Your task to perform on an android device: turn off picture-in-picture Image 0: 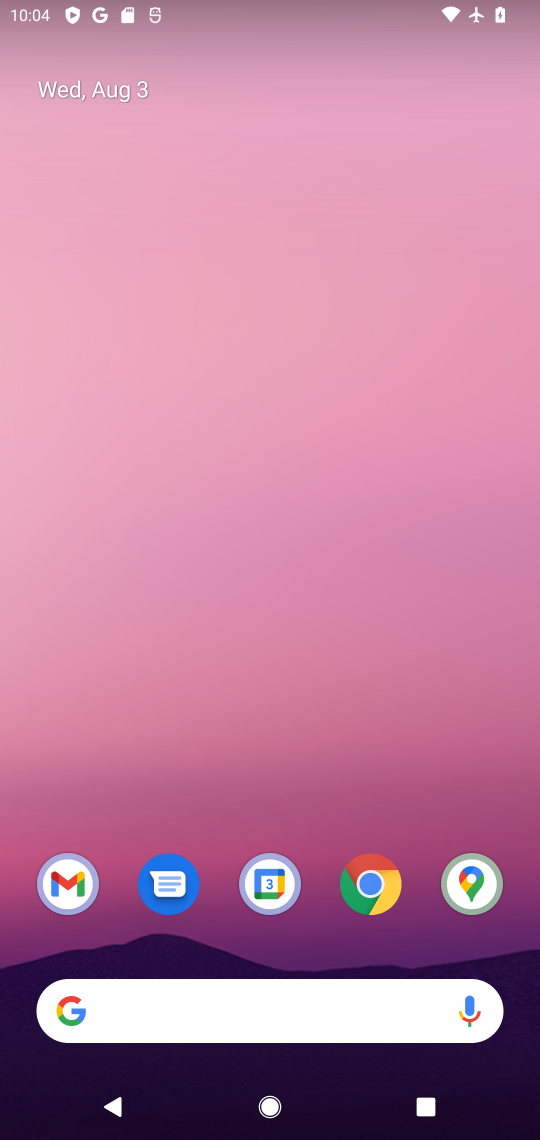
Step 0: click (368, 889)
Your task to perform on an android device: turn off picture-in-picture Image 1: 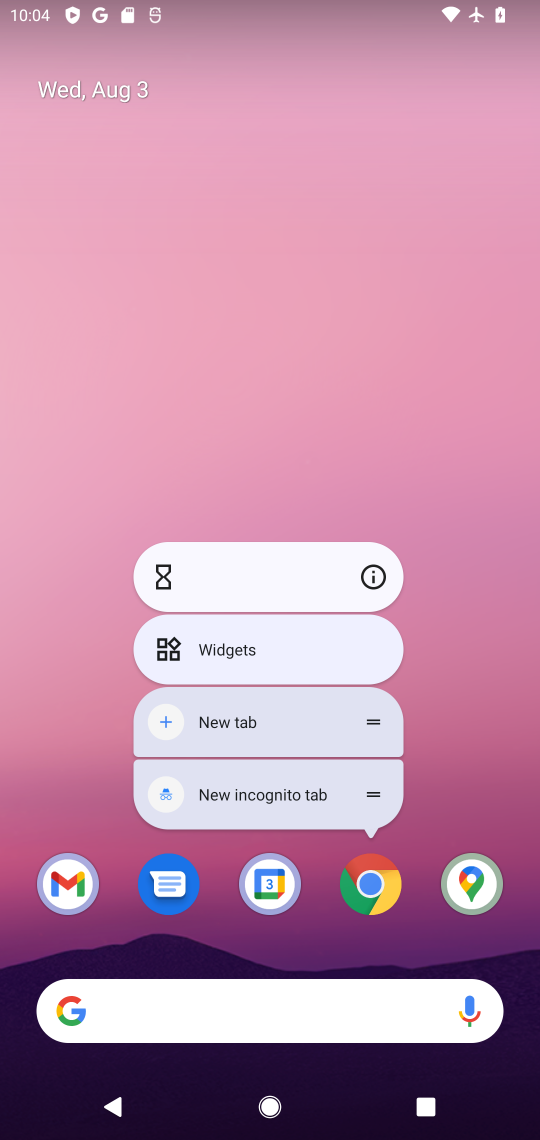
Step 1: click (365, 569)
Your task to perform on an android device: turn off picture-in-picture Image 2: 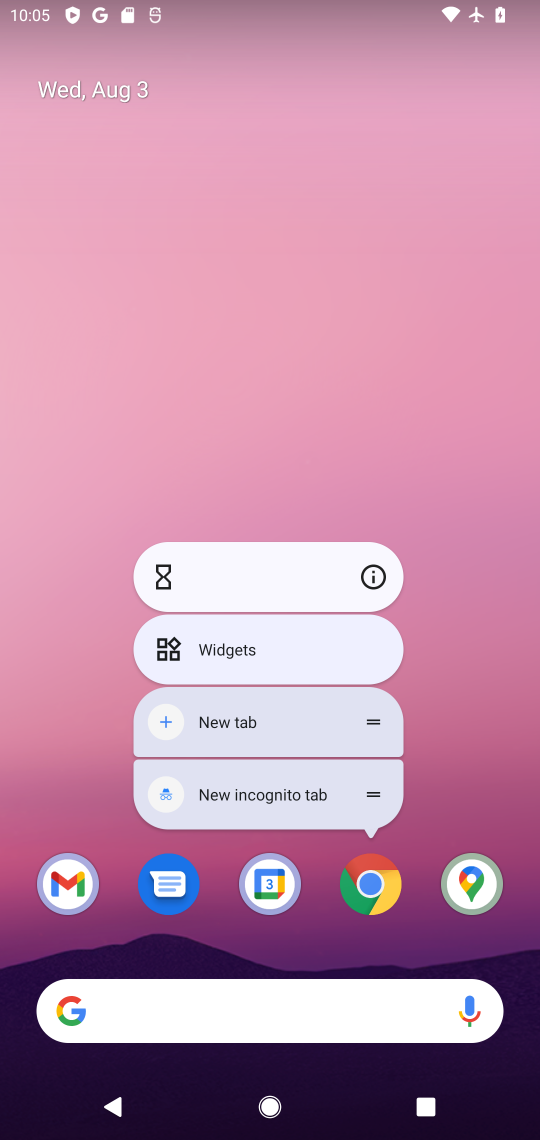
Step 2: click (368, 574)
Your task to perform on an android device: turn off picture-in-picture Image 3: 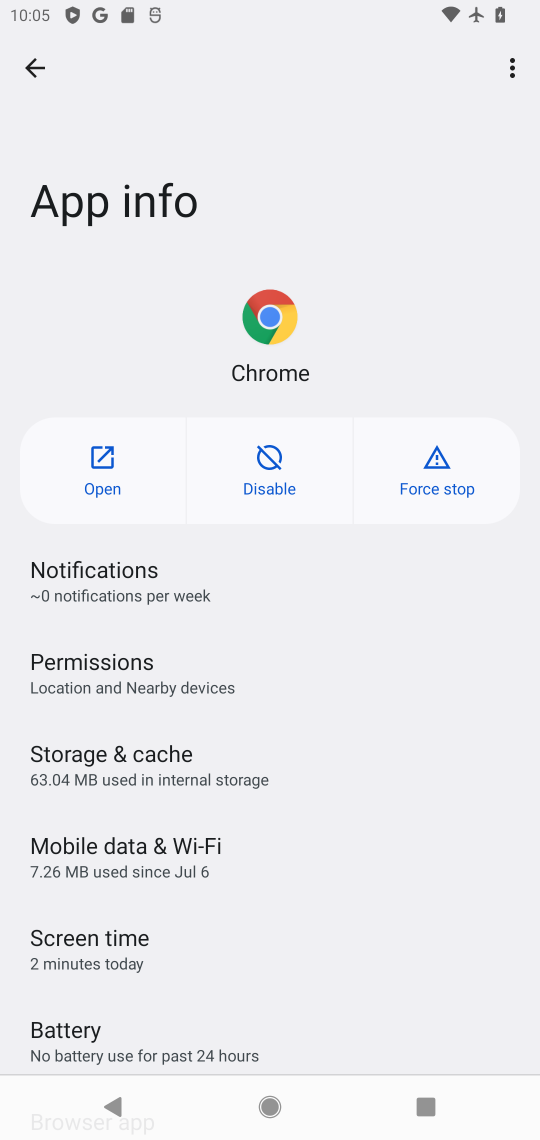
Step 3: drag from (287, 940) to (276, 563)
Your task to perform on an android device: turn off picture-in-picture Image 4: 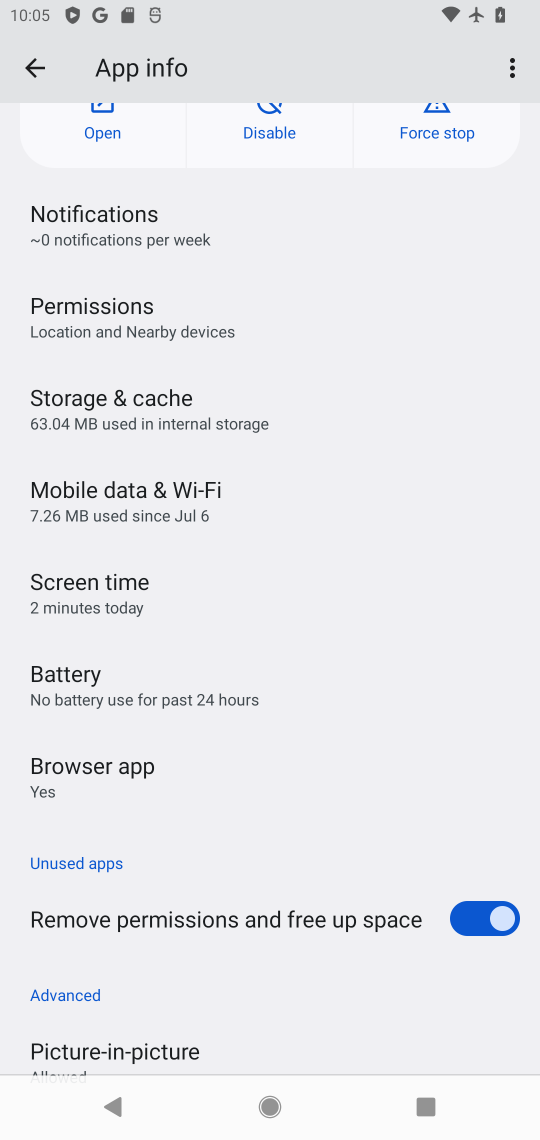
Step 4: drag from (300, 993) to (289, 605)
Your task to perform on an android device: turn off picture-in-picture Image 5: 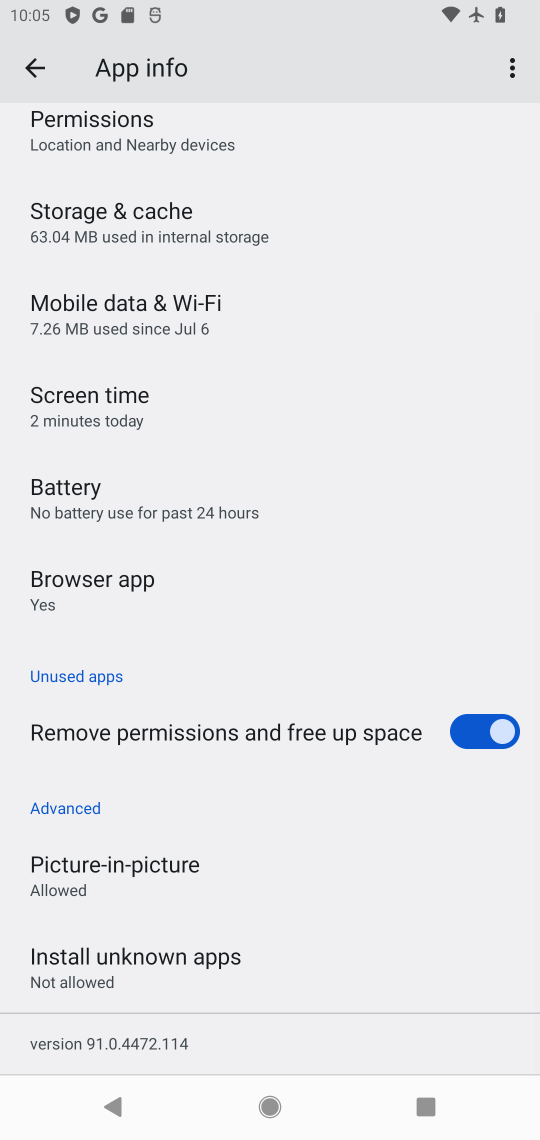
Step 5: click (125, 854)
Your task to perform on an android device: turn off picture-in-picture Image 6: 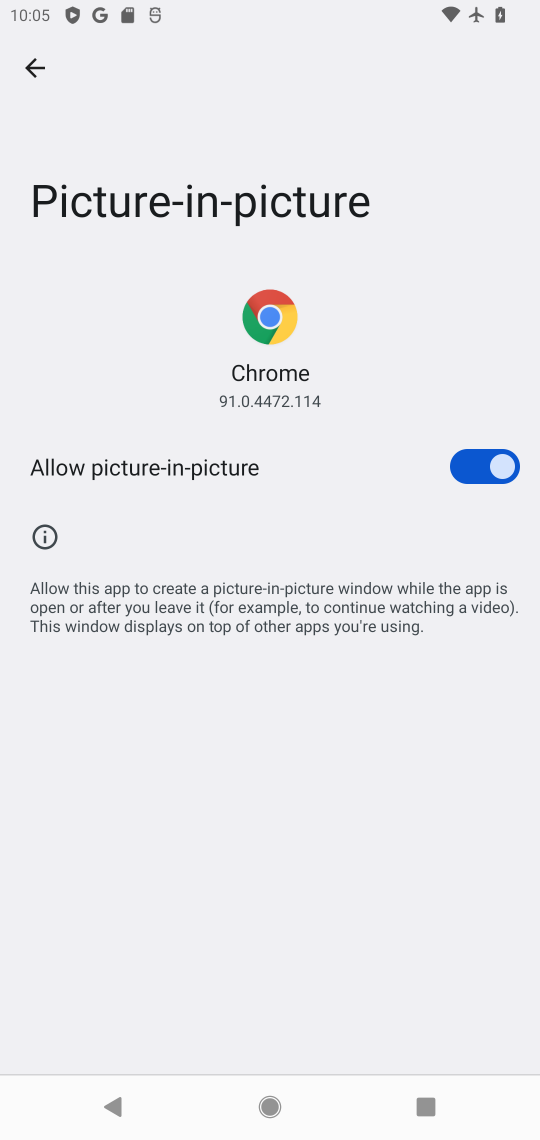
Step 6: click (480, 467)
Your task to perform on an android device: turn off picture-in-picture Image 7: 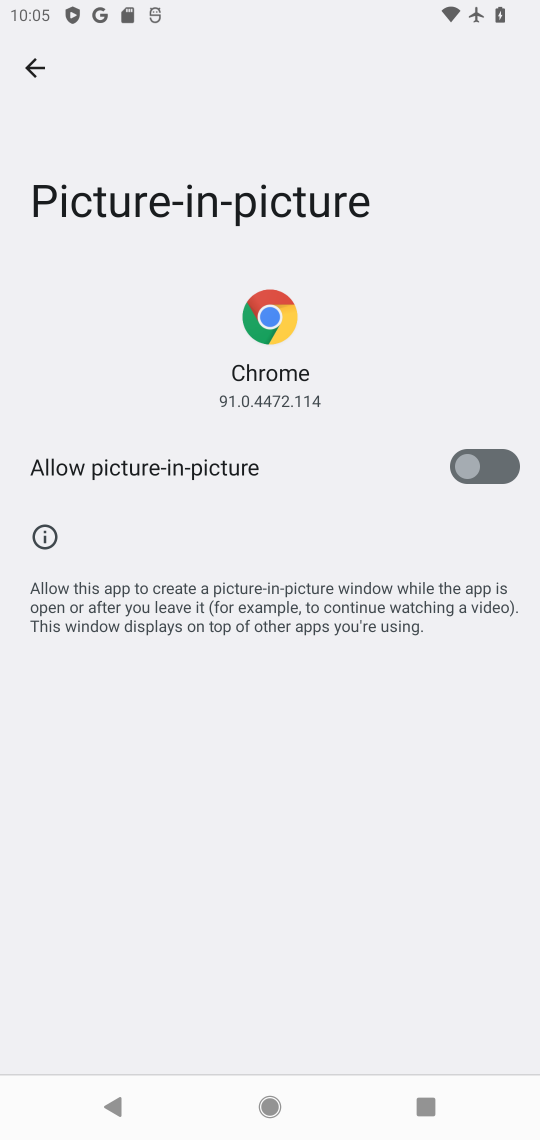
Step 7: task complete